Your task to perform on an android device: Open the calendar app, open the side menu, and click the "Day" option Image 0: 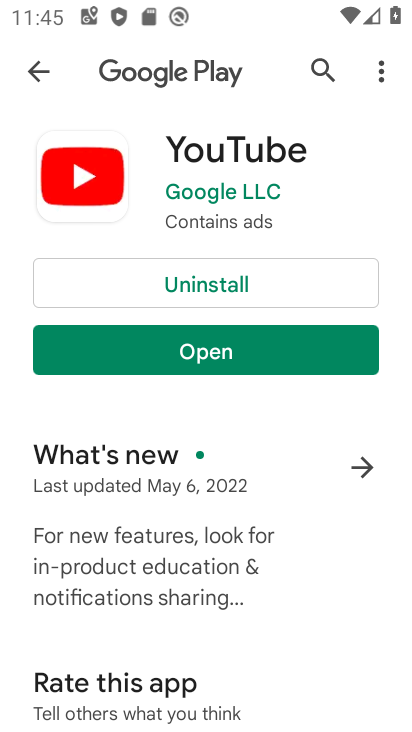
Step 0: press home button
Your task to perform on an android device: Open the calendar app, open the side menu, and click the "Day" option Image 1: 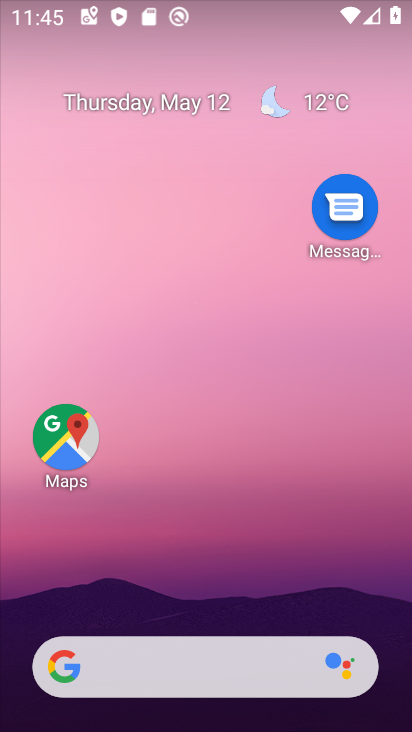
Step 1: drag from (279, 539) to (239, 23)
Your task to perform on an android device: Open the calendar app, open the side menu, and click the "Day" option Image 2: 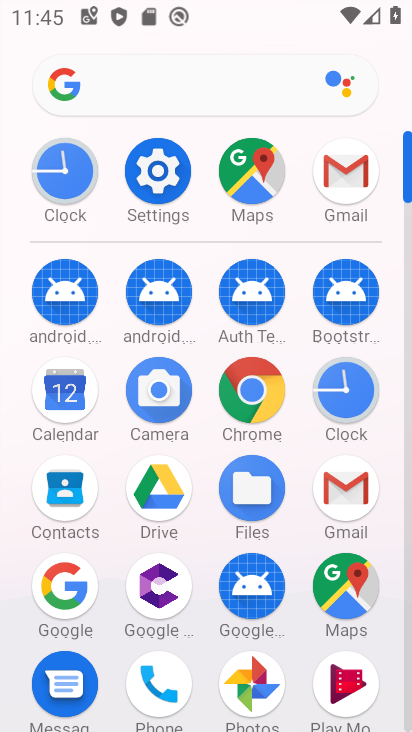
Step 2: click (55, 397)
Your task to perform on an android device: Open the calendar app, open the side menu, and click the "Day" option Image 3: 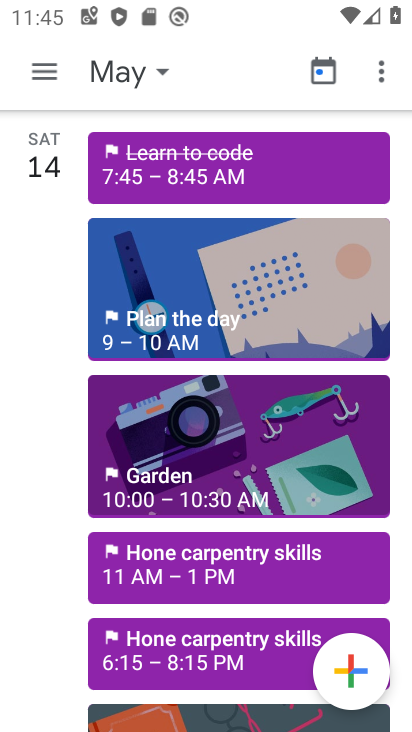
Step 3: click (29, 71)
Your task to perform on an android device: Open the calendar app, open the side menu, and click the "Day" option Image 4: 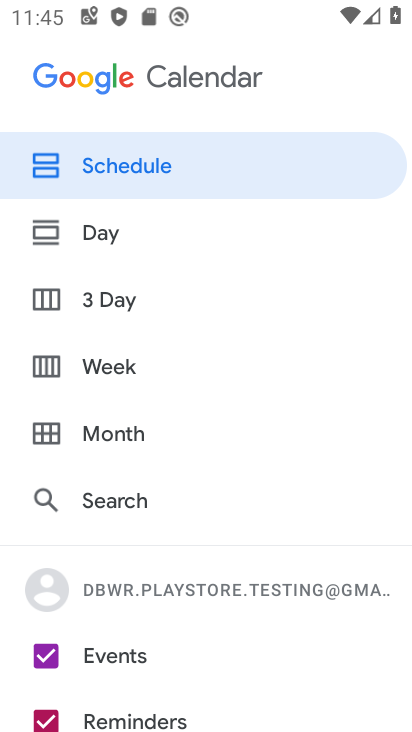
Step 4: click (169, 238)
Your task to perform on an android device: Open the calendar app, open the side menu, and click the "Day" option Image 5: 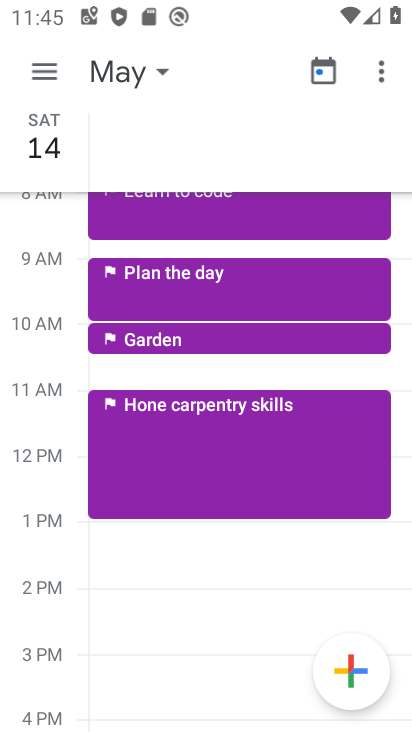
Step 5: task complete